Your task to perform on an android device: refresh tabs in the chrome app Image 0: 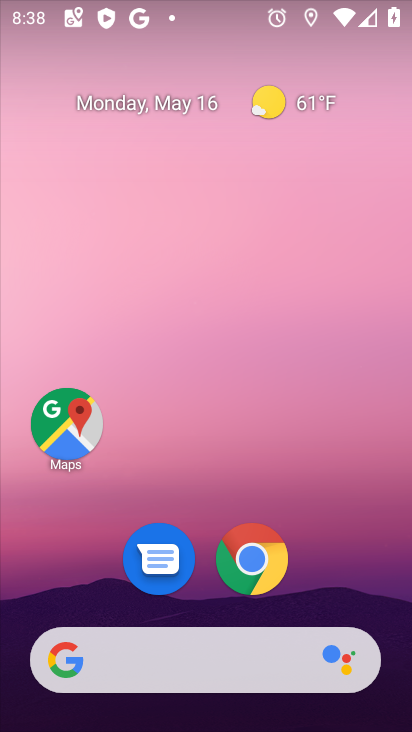
Step 0: drag from (351, 574) to (343, 97)
Your task to perform on an android device: refresh tabs in the chrome app Image 1: 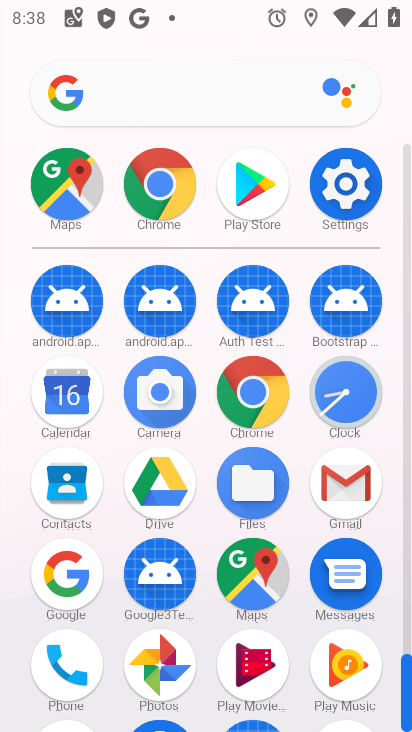
Step 1: click (246, 410)
Your task to perform on an android device: refresh tabs in the chrome app Image 2: 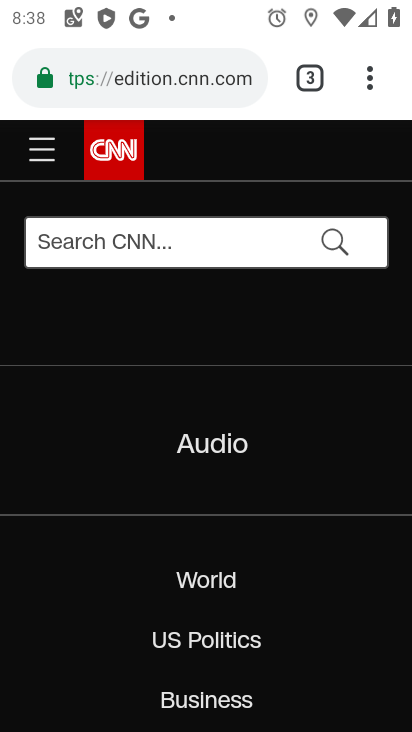
Step 2: click (370, 93)
Your task to perform on an android device: refresh tabs in the chrome app Image 3: 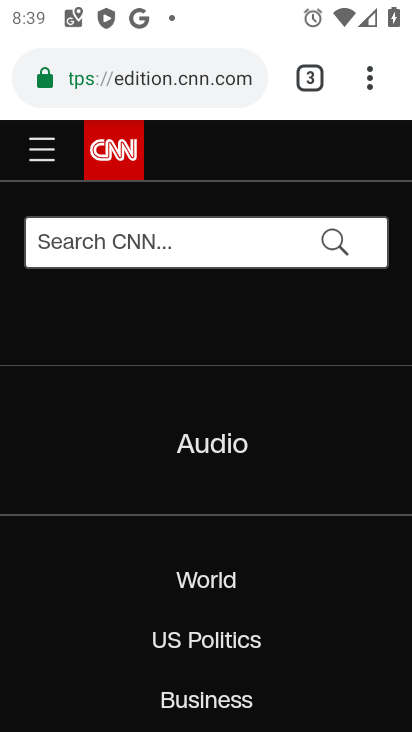
Step 3: task complete